Your task to perform on an android device: turn notification dots off Image 0: 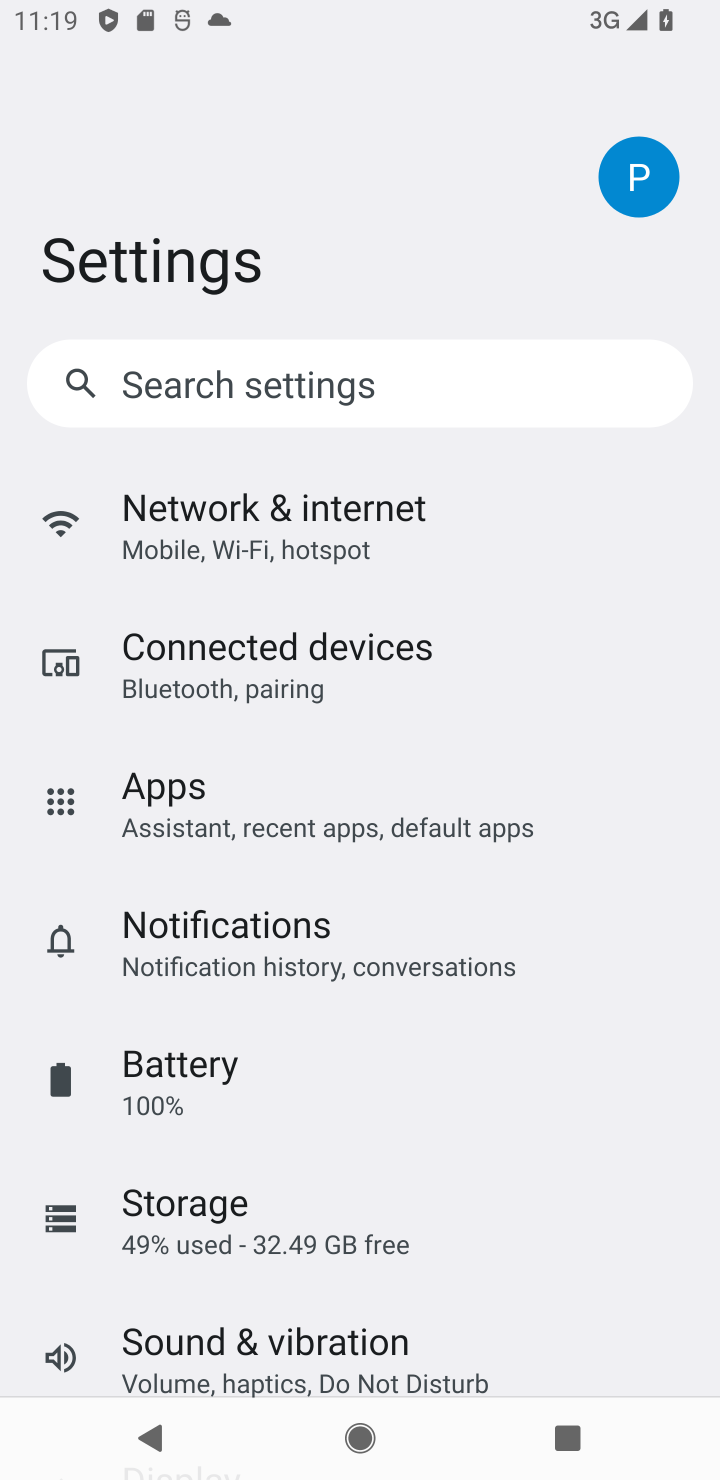
Step 0: press home button
Your task to perform on an android device: turn notification dots off Image 1: 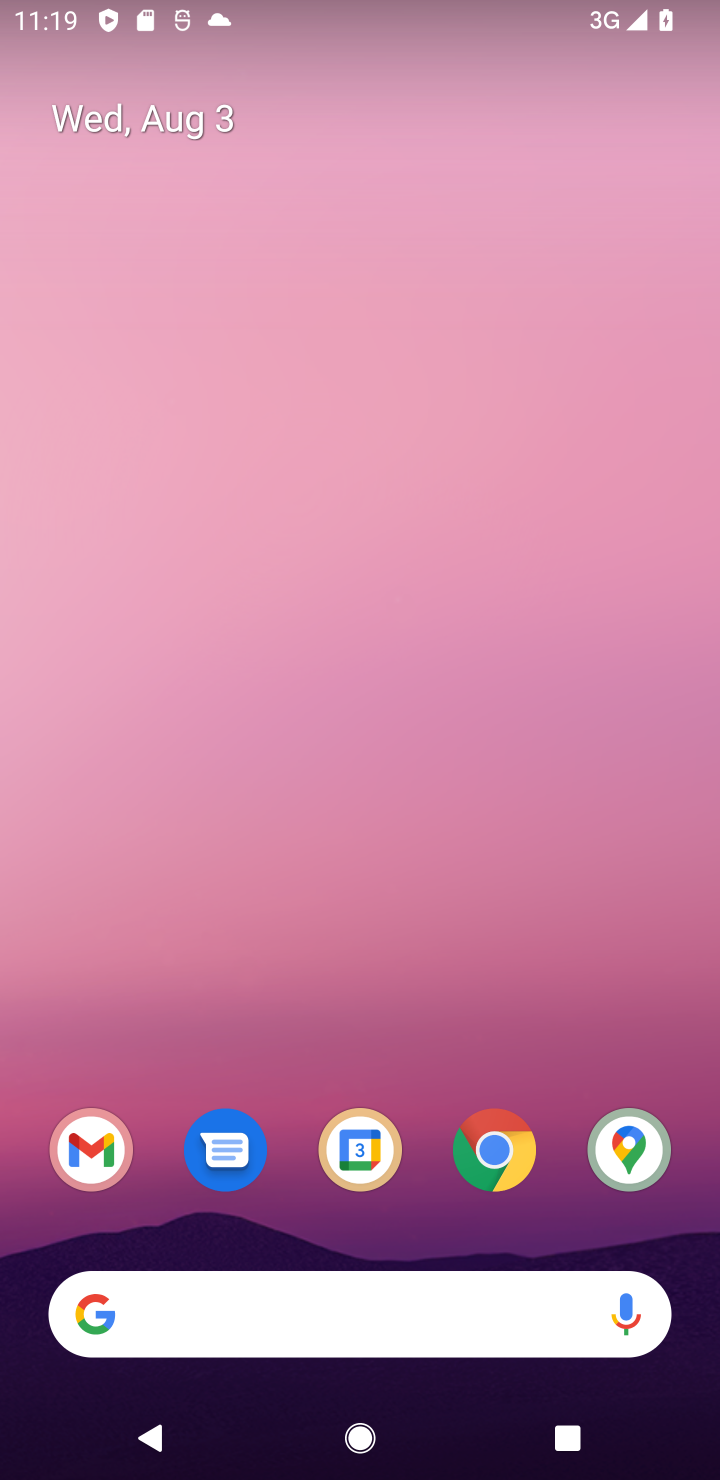
Step 1: drag from (564, 1074) to (531, 410)
Your task to perform on an android device: turn notification dots off Image 2: 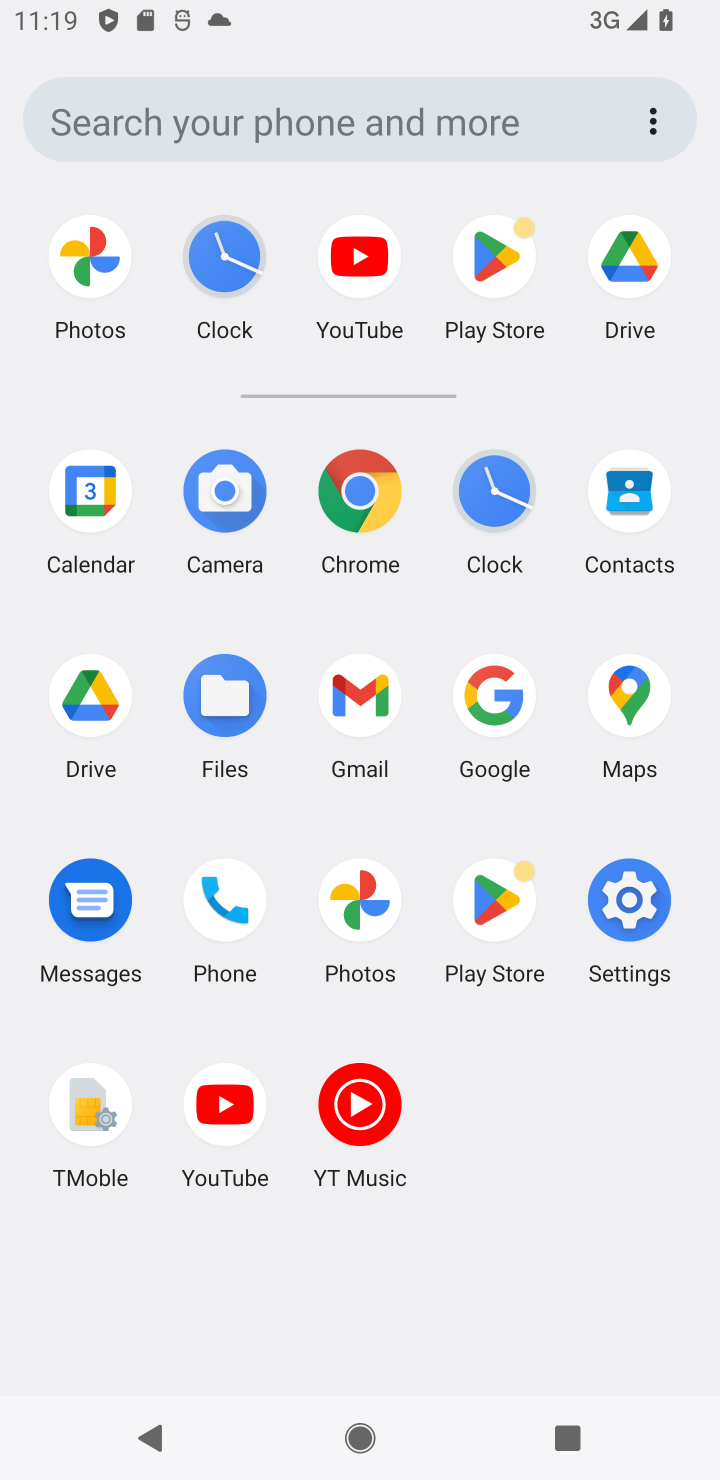
Step 2: click (651, 899)
Your task to perform on an android device: turn notification dots off Image 3: 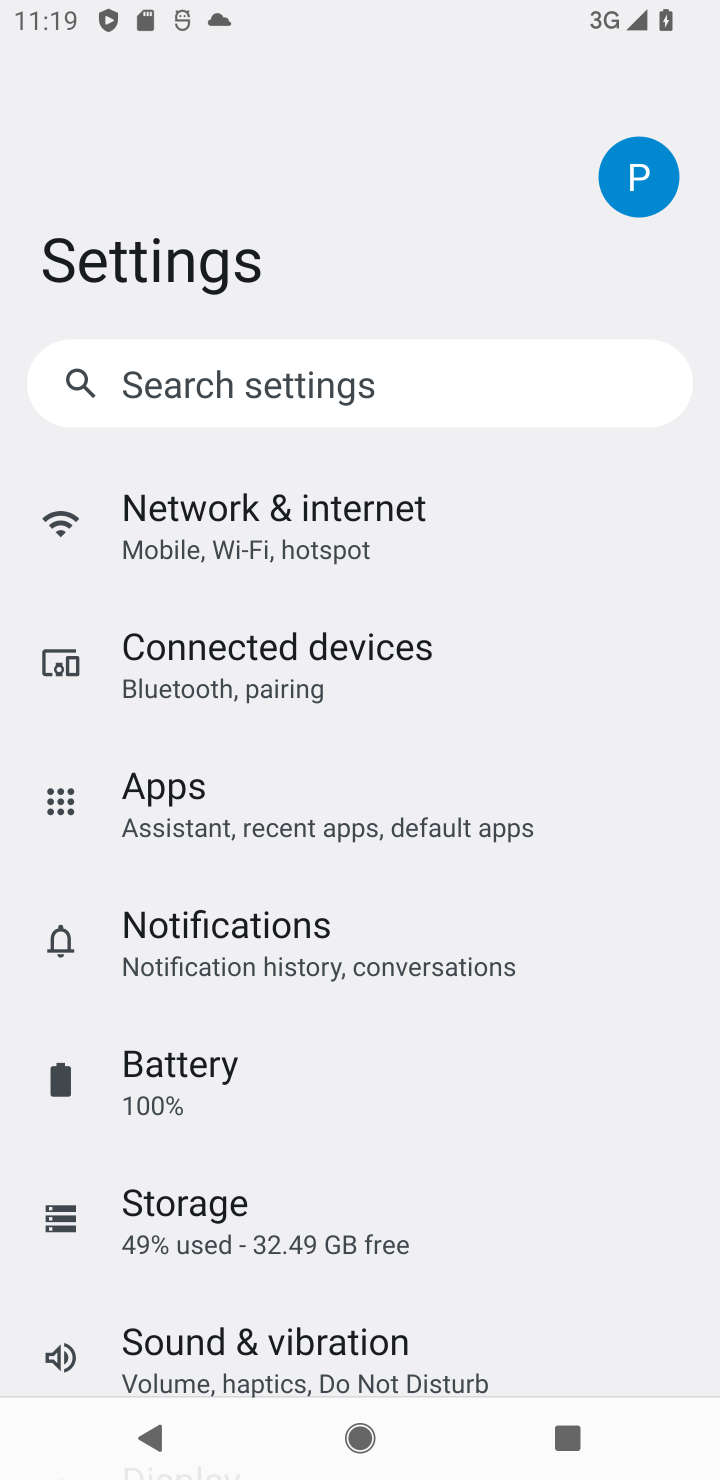
Step 3: drag from (592, 1202) to (585, 890)
Your task to perform on an android device: turn notification dots off Image 4: 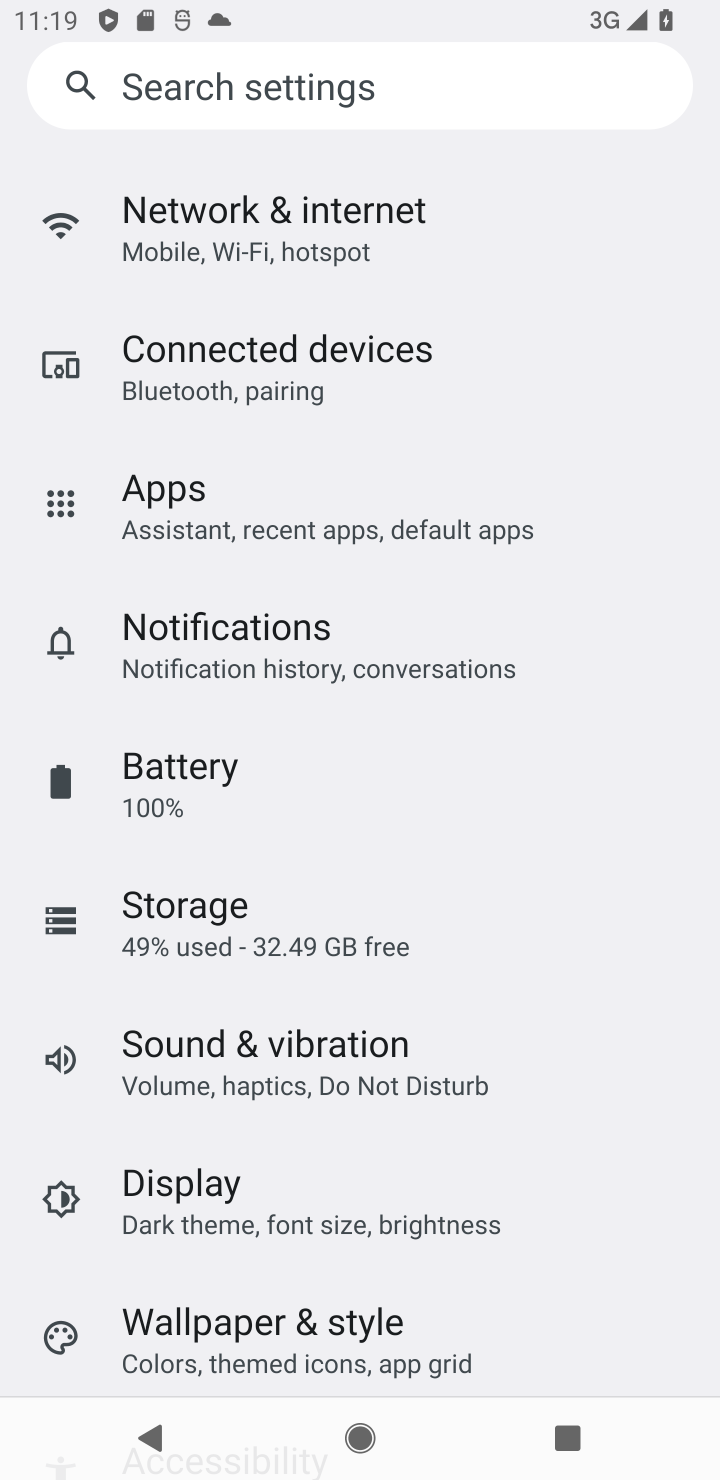
Step 4: drag from (591, 1134) to (583, 812)
Your task to perform on an android device: turn notification dots off Image 5: 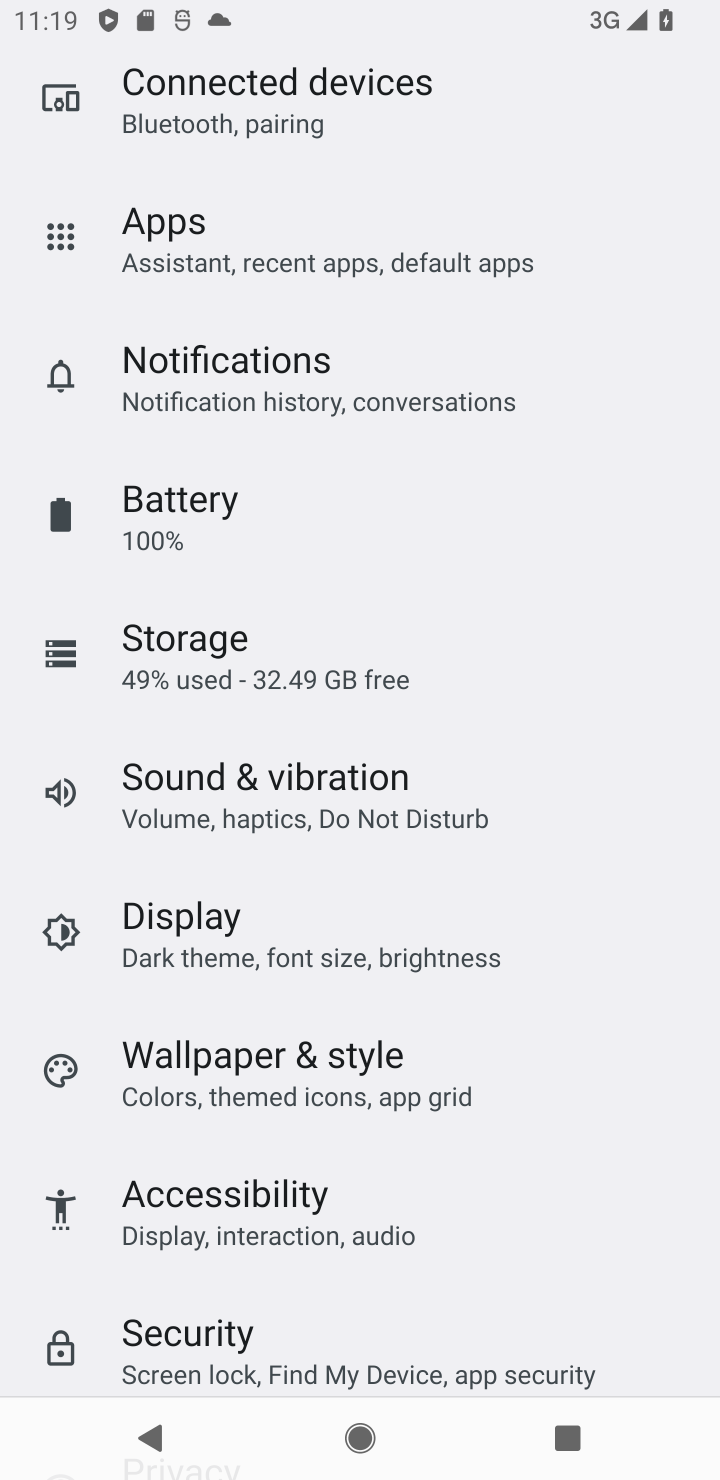
Step 5: drag from (596, 1192) to (596, 938)
Your task to perform on an android device: turn notification dots off Image 6: 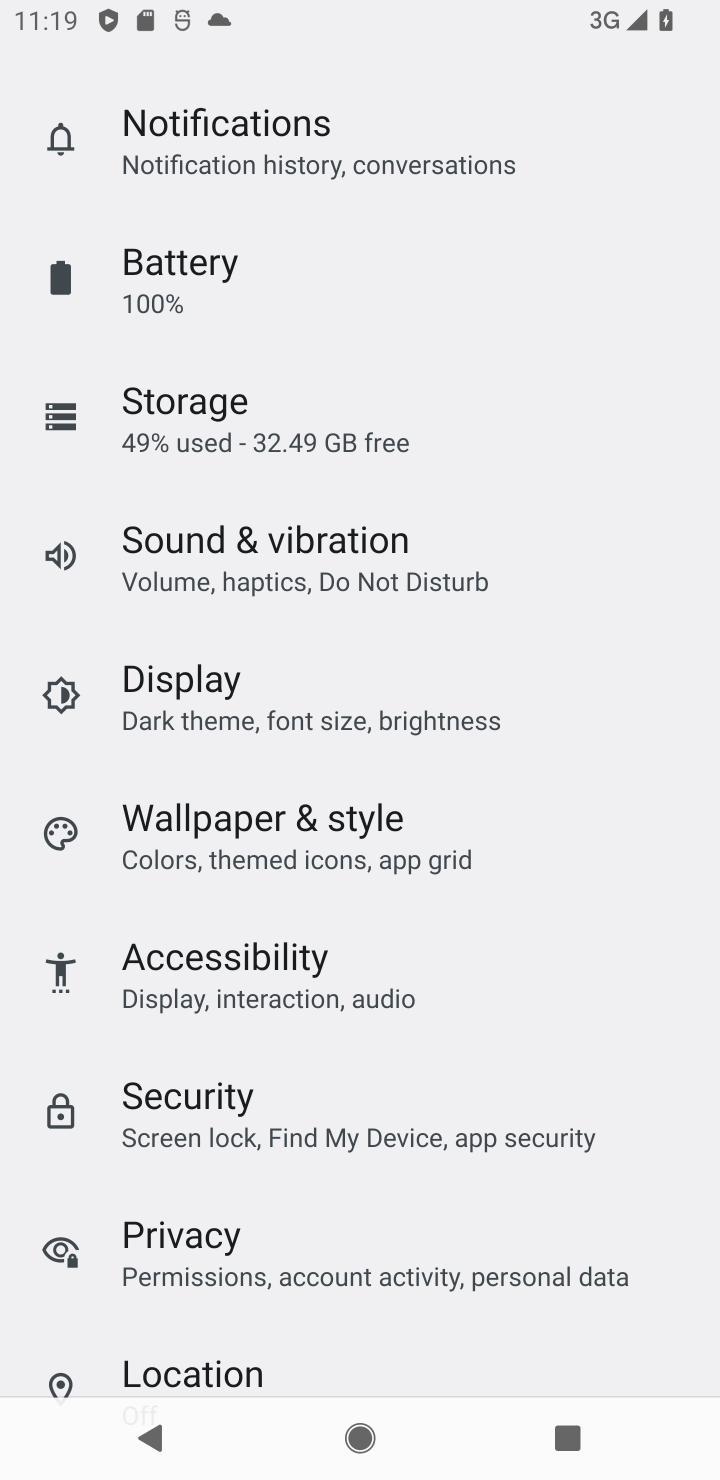
Step 6: drag from (612, 1175) to (590, 854)
Your task to perform on an android device: turn notification dots off Image 7: 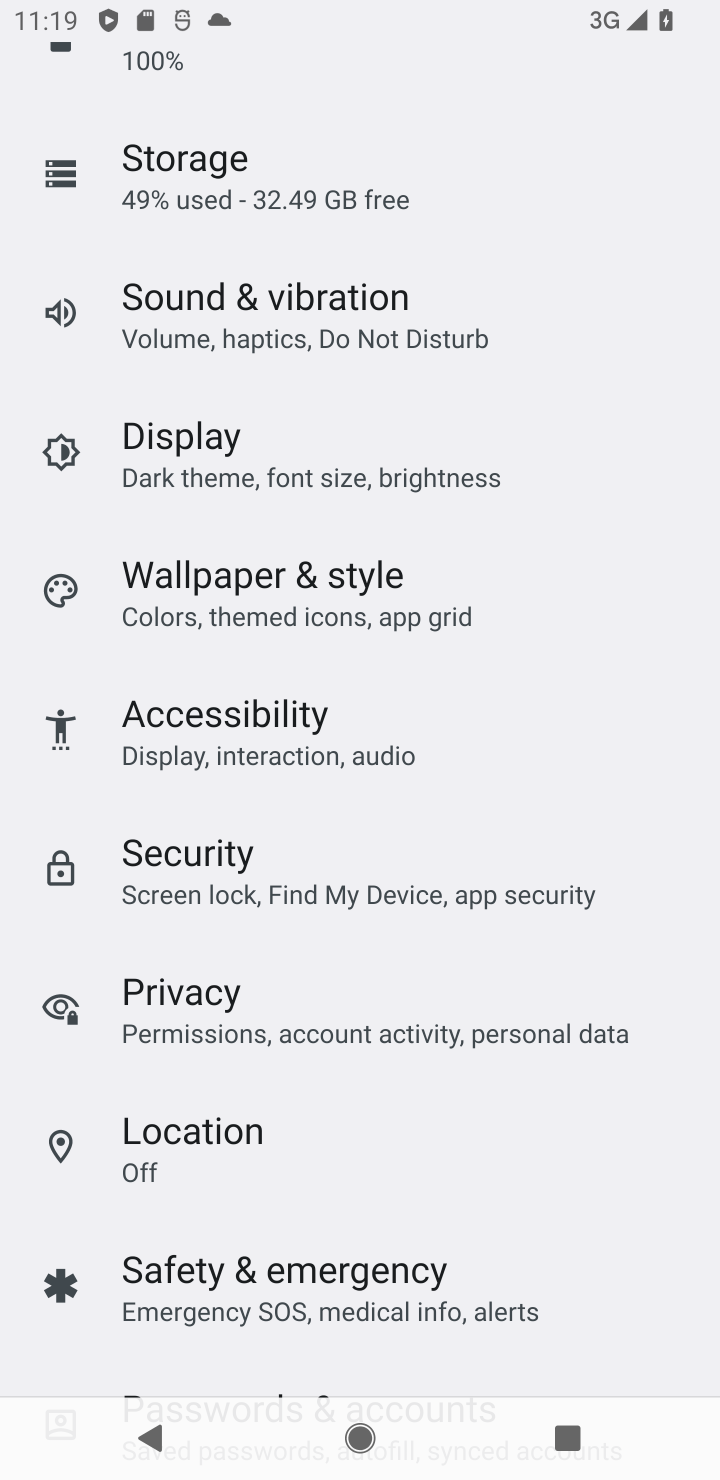
Step 7: drag from (557, 1176) to (559, 856)
Your task to perform on an android device: turn notification dots off Image 8: 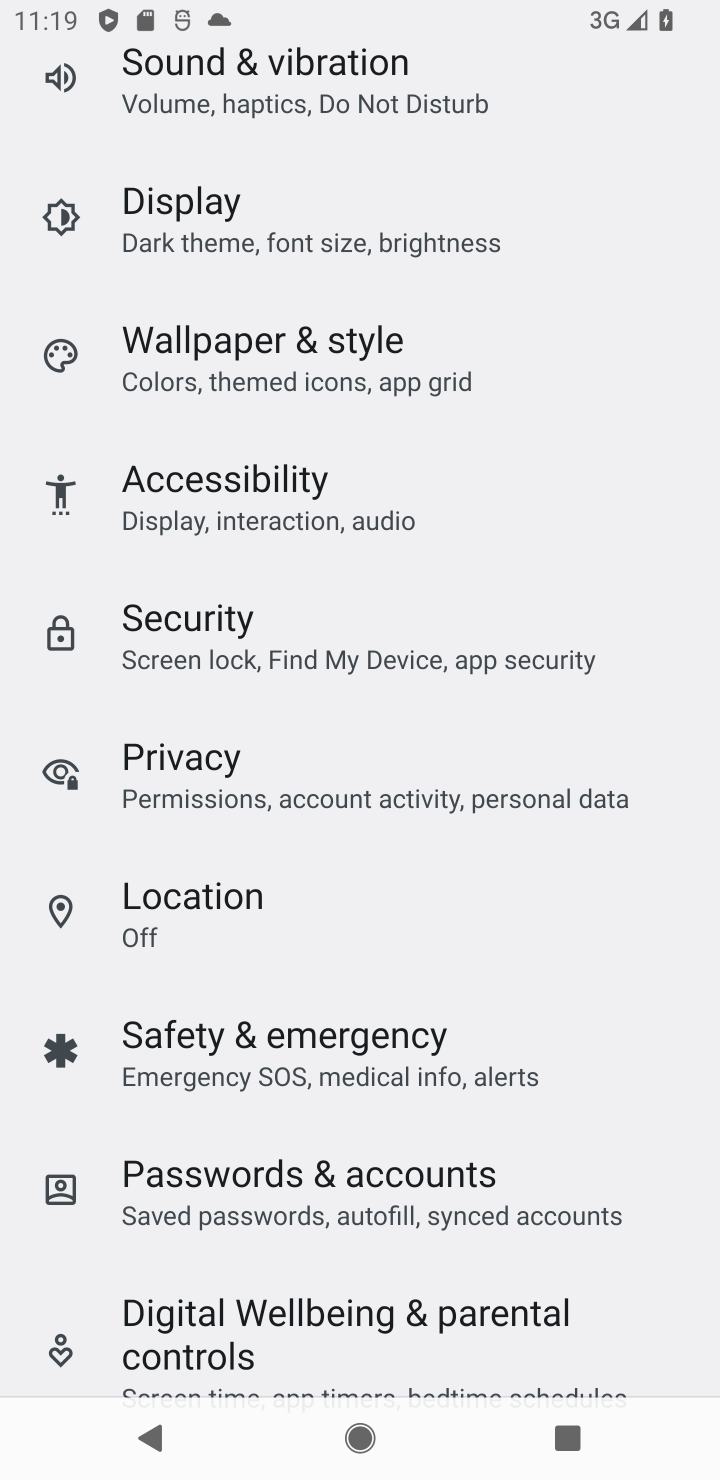
Step 8: drag from (570, 518) to (574, 991)
Your task to perform on an android device: turn notification dots off Image 9: 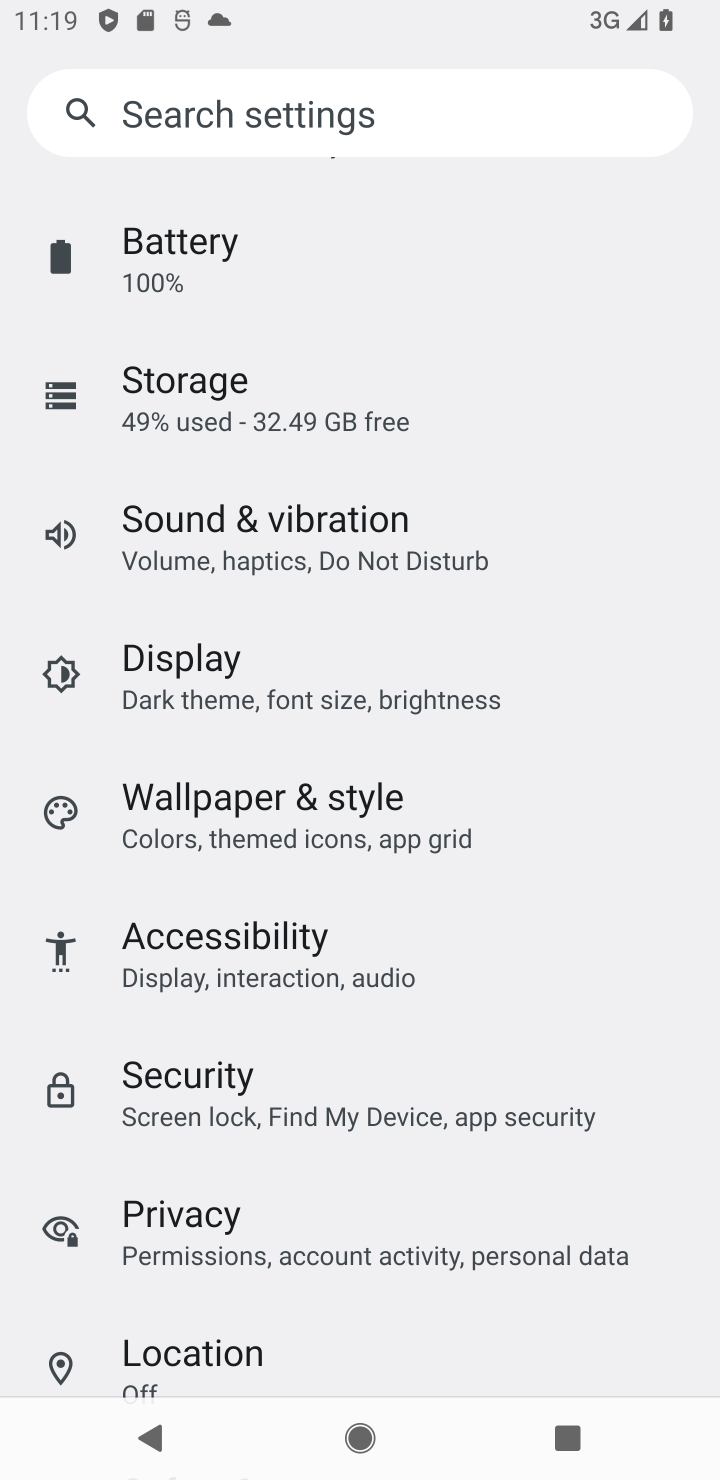
Step 9: drag from (566, 407) to (573, 850)
Your task to perform on an android device: turn notification dots off Image 10: 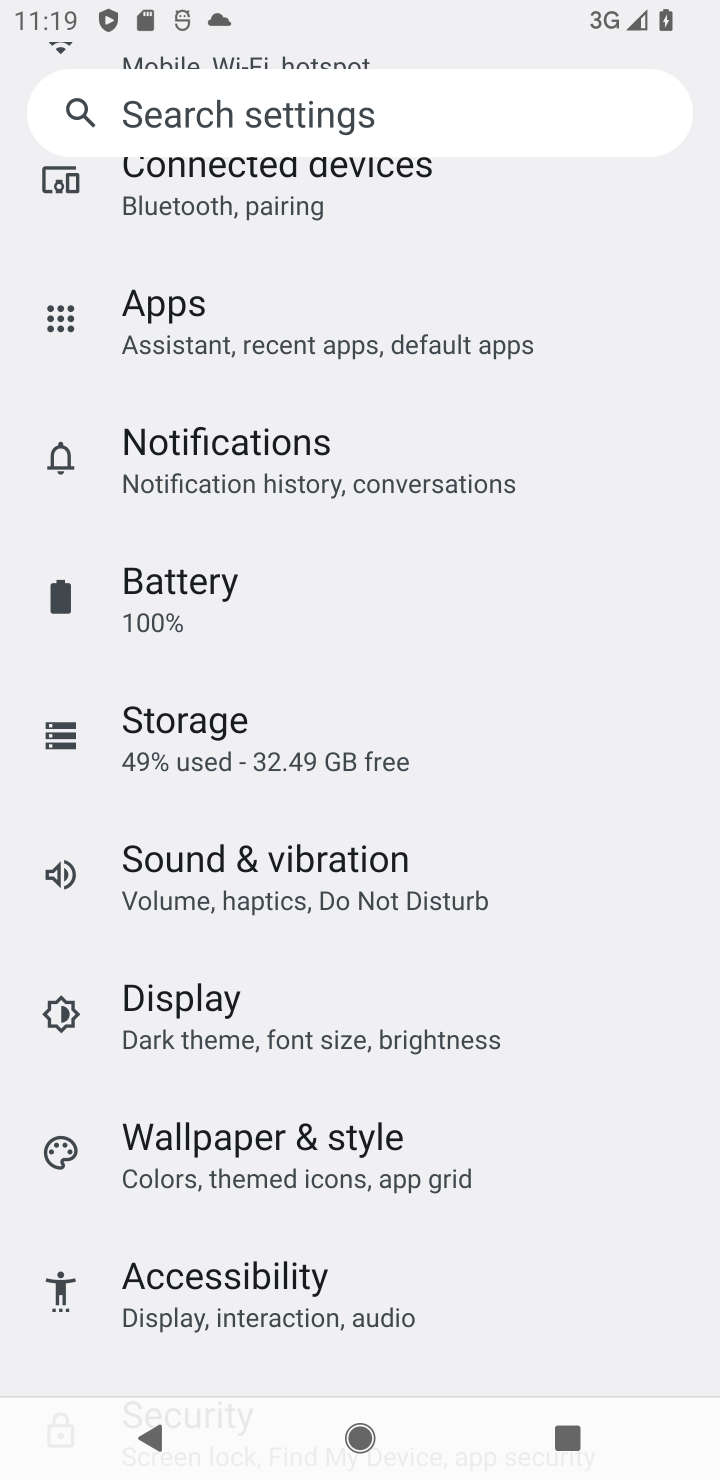
Step 10: drag from (638, 455) to (591, 794)
Your task to perform on an android device: turn notification dots off Image 11: 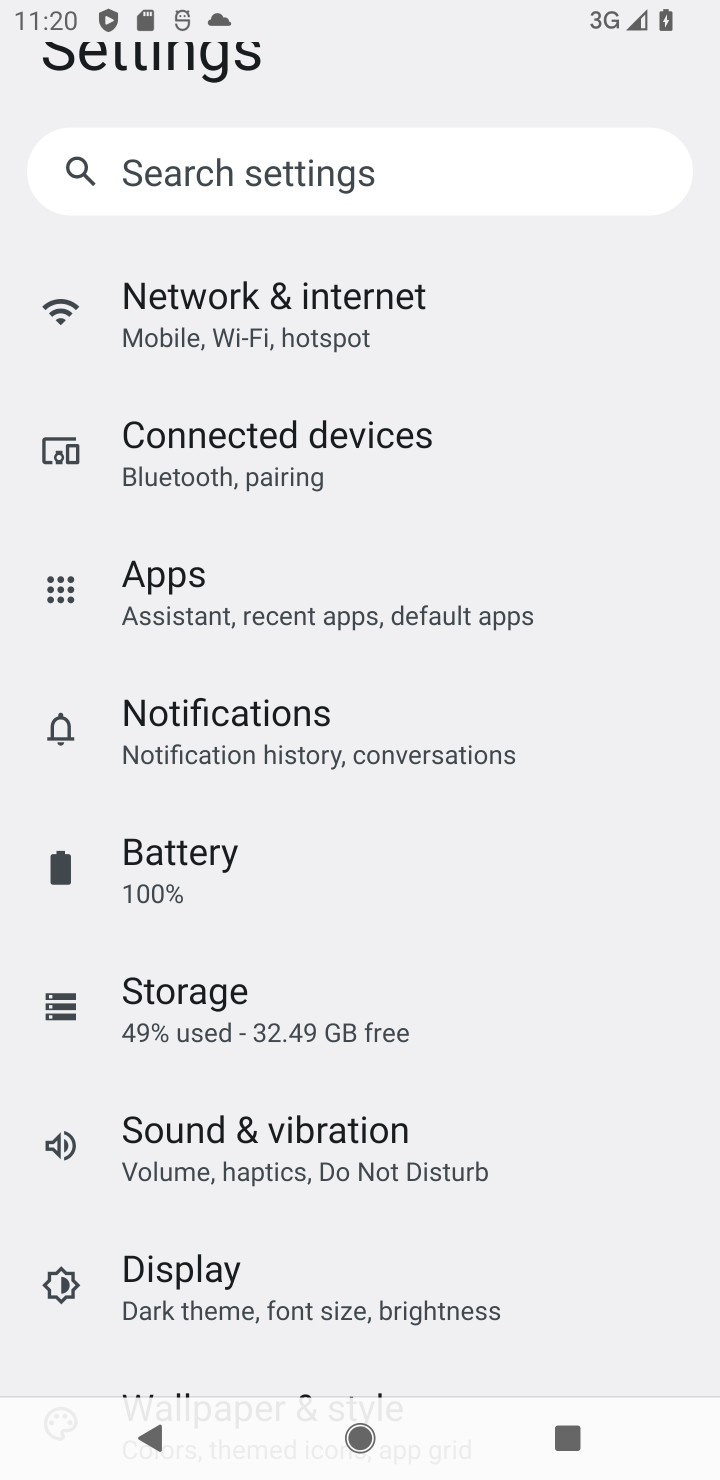
Step 11: click (361, 713)
Your task to perform on an android device: turn notification dots off Image 12: 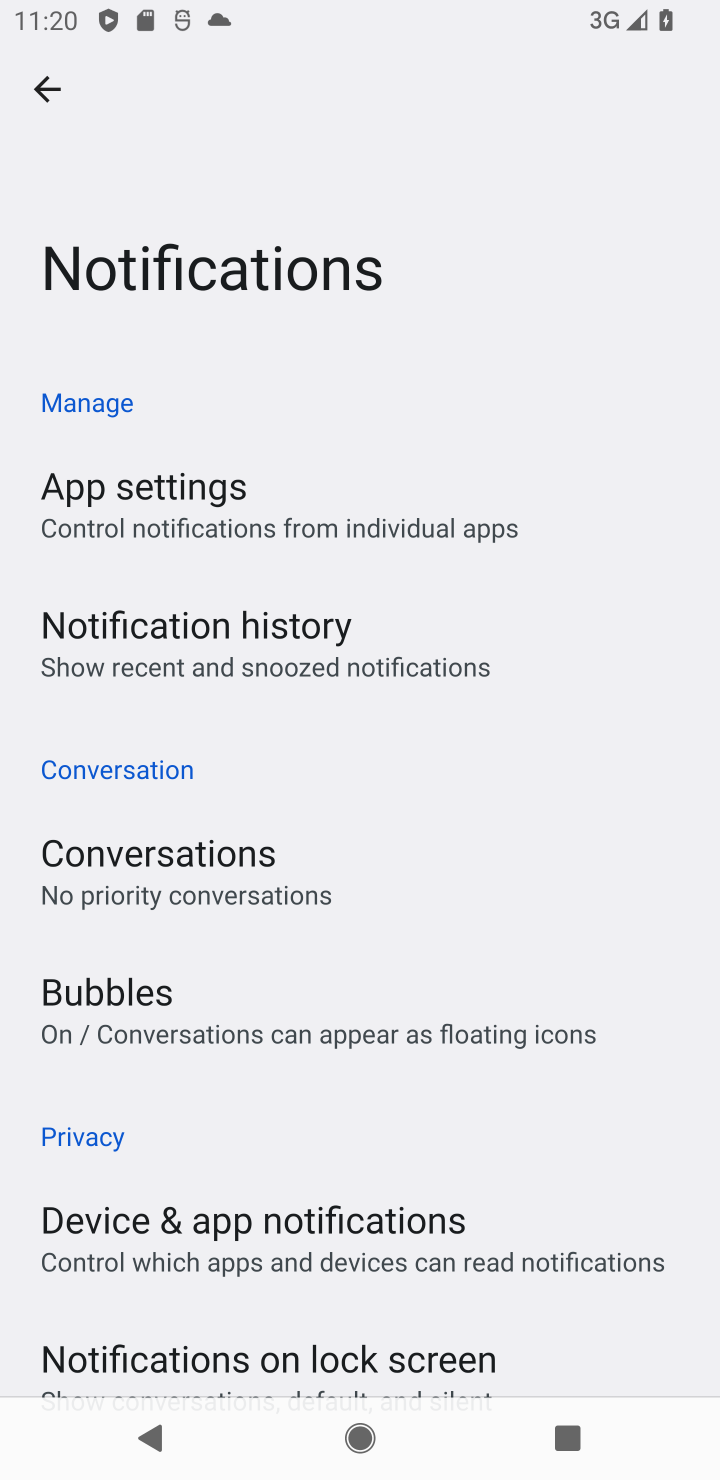
Step 12: drag from (549, 1172) to (545, 816)
Your task to perform on an android device: turn notification dots off Image 13: 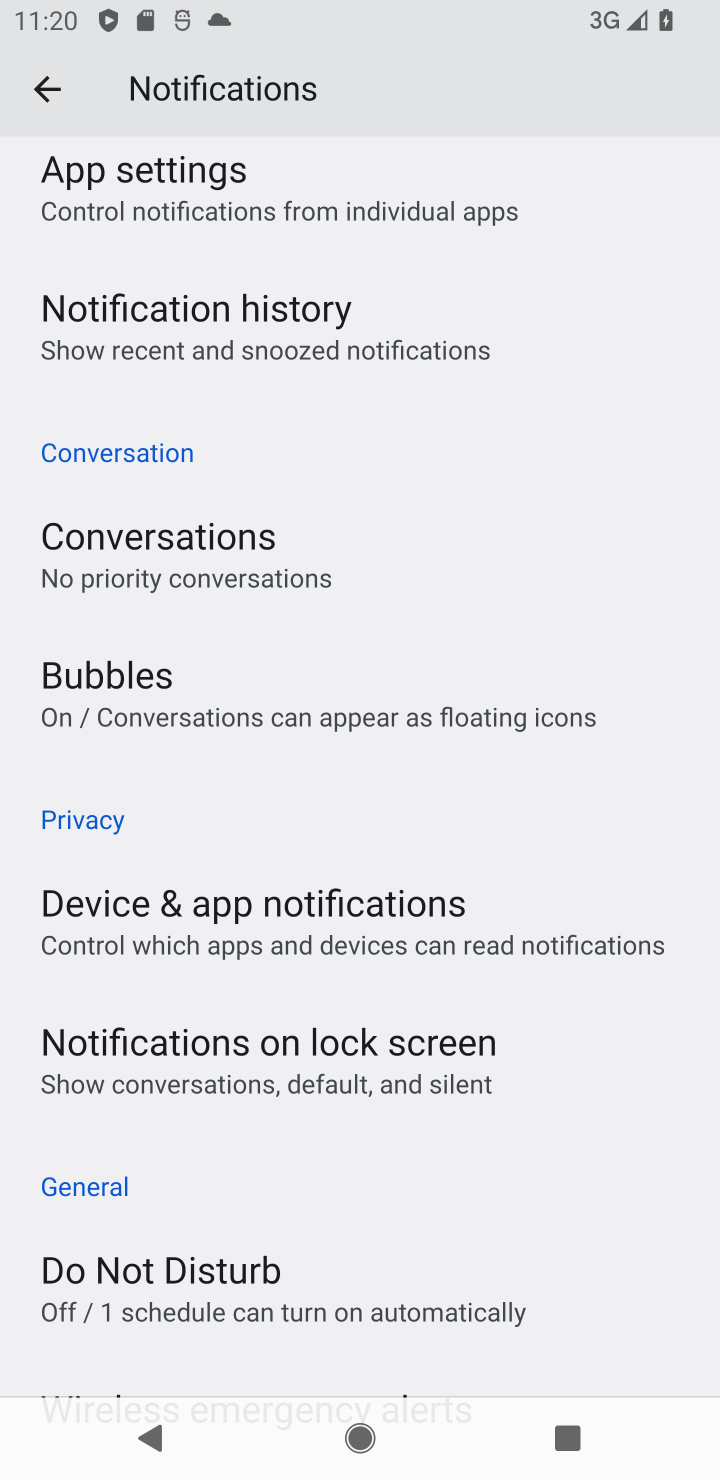
Step 13: drag from (571, 1137) to (584, 846)
Your task to perform on an android device: turn notification dots off Image 14: 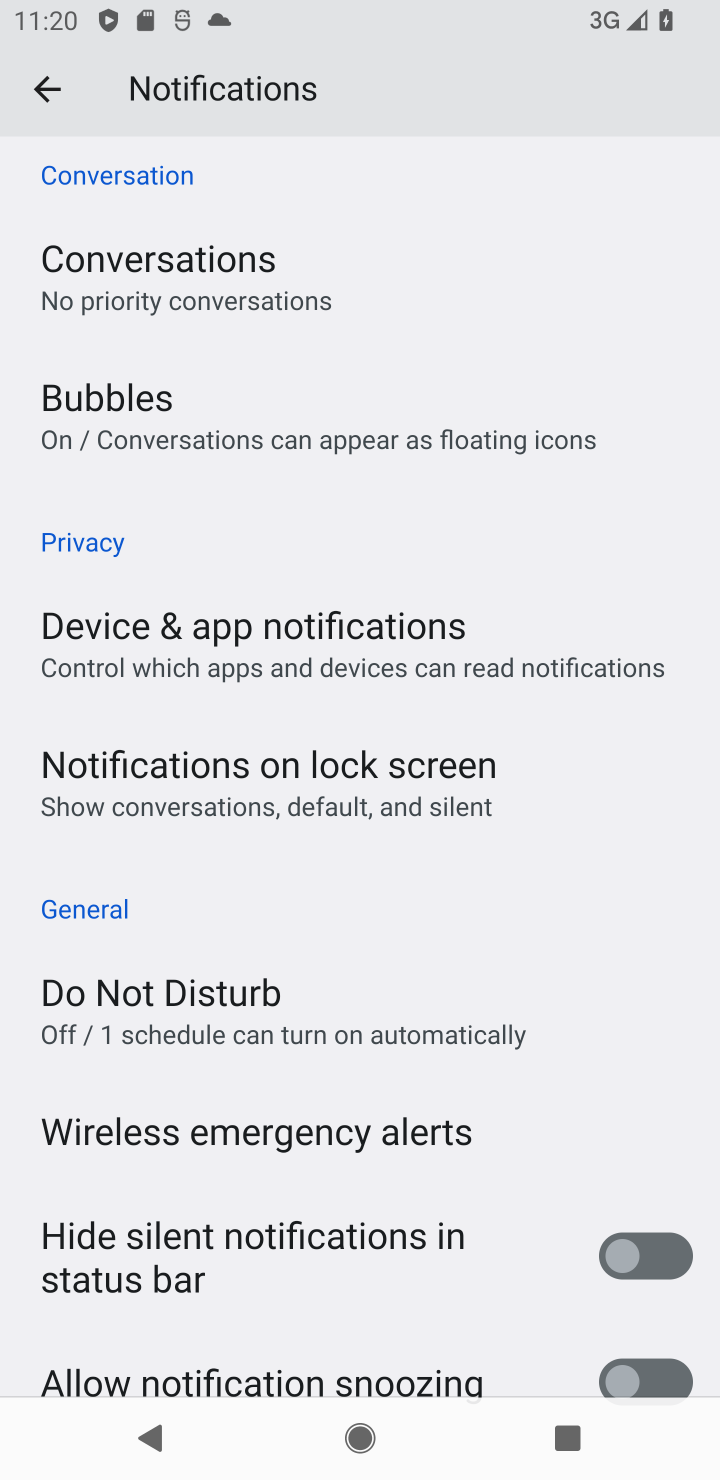
Step 14: drag from (488, 1187) to (510, 902)
Your task to perform on an android device: turn notification dots off Image 15: 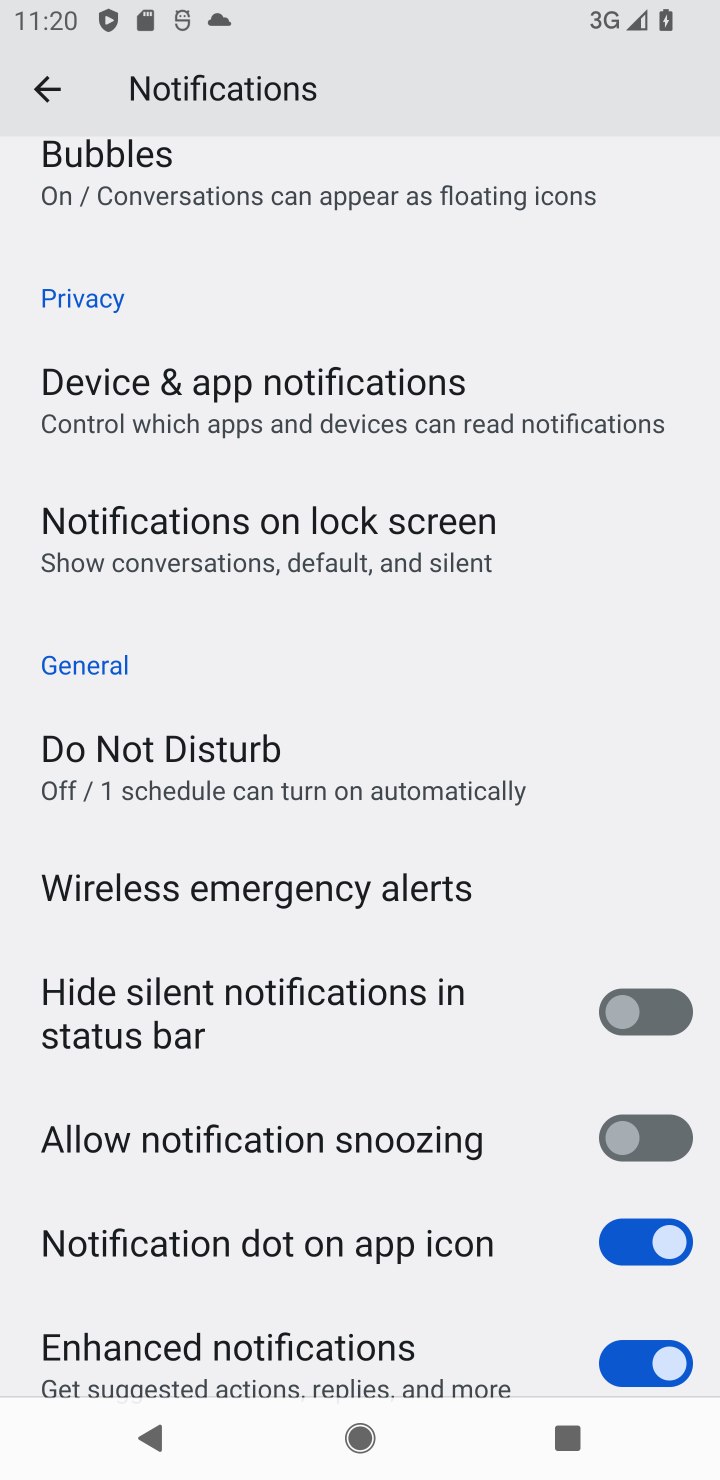
Step 15: click (632, 1252)
Your task to perform on an android device: turn notification dots off Image 16: 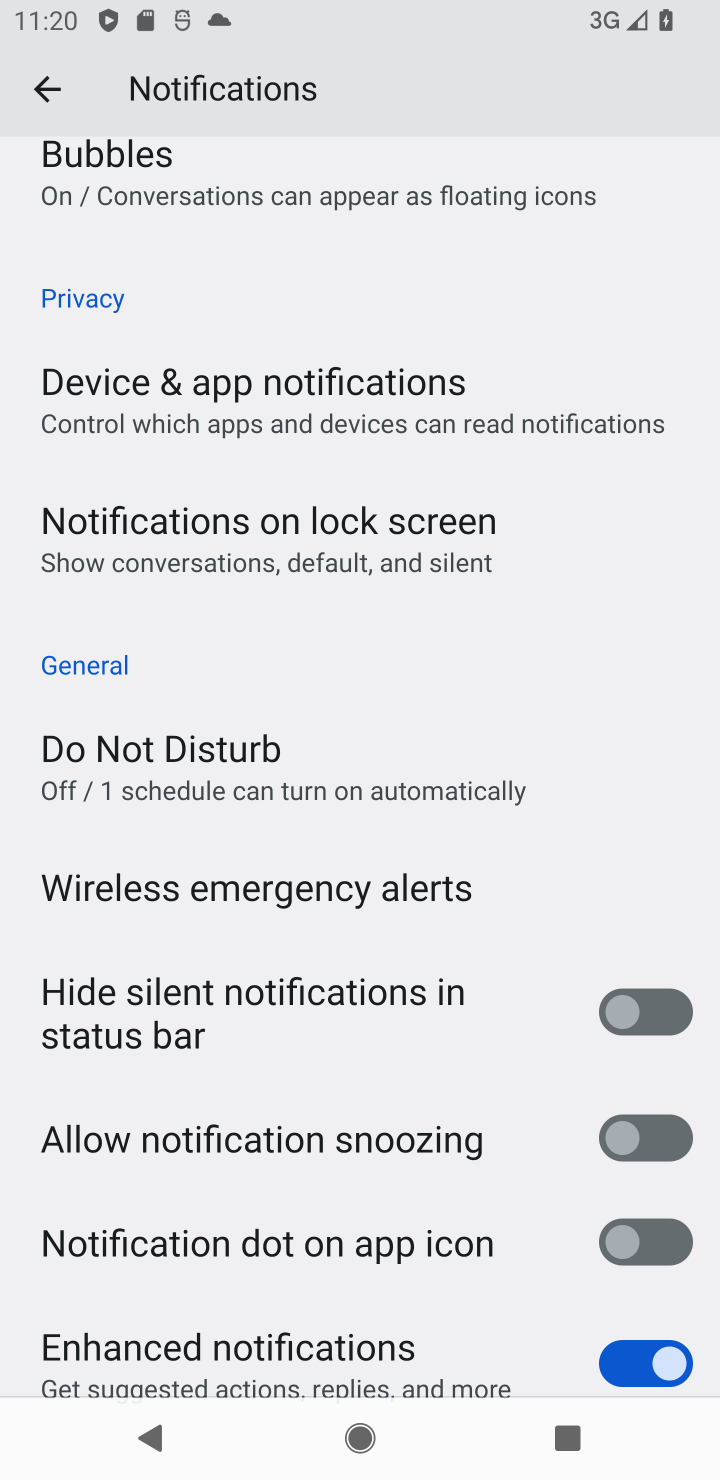
Step 16: task complete